Your task to perform on an android device: turn on wifi Image 0: 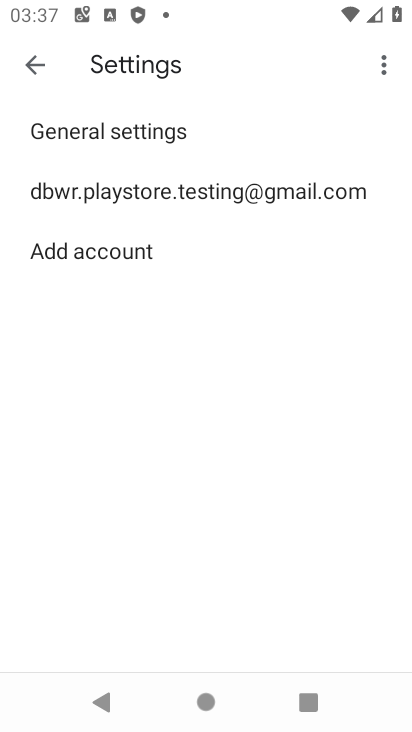
Step 0: press home button
Your task to perform on an android device: turn on wifi Image 1: 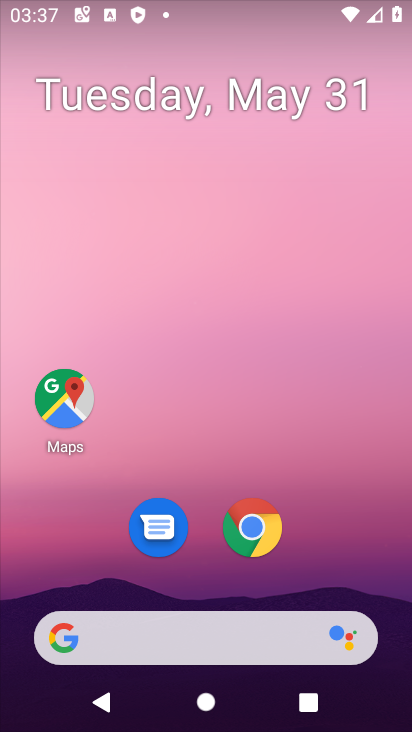
Step 1: drag from (401, 636) to (339, 72)
Your task to perform on an android device: turn on wifi Image 2: 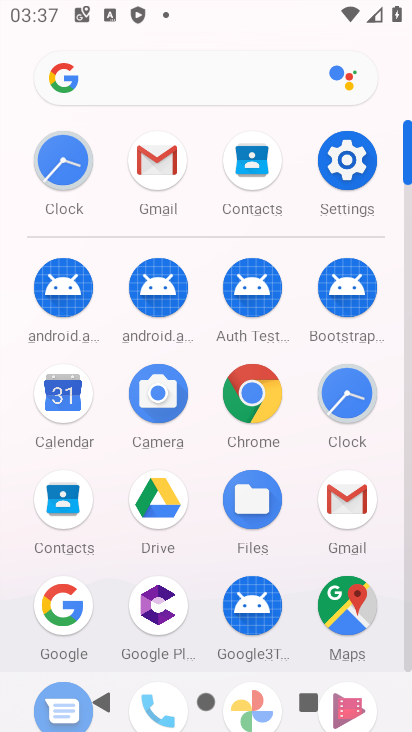
Step 2: click (407, 641)
Your task to perform on an android device: turn on wifi Image 3: 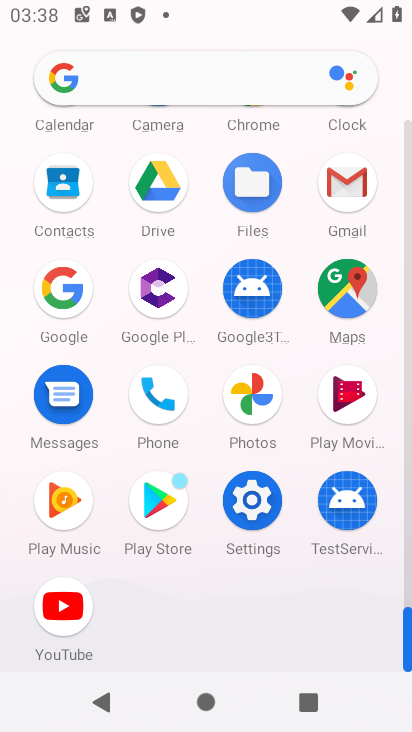
Step 3: click (250, 499)
Your task to perform on an android device: turn on wifi Image 4: 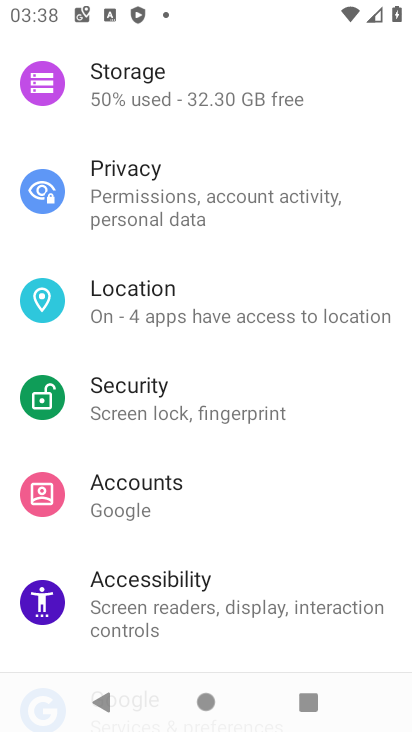
Step 4: drag from (327, 151) to (358, 469)
Your task to perform on an android device: turn on wifi Image 5: 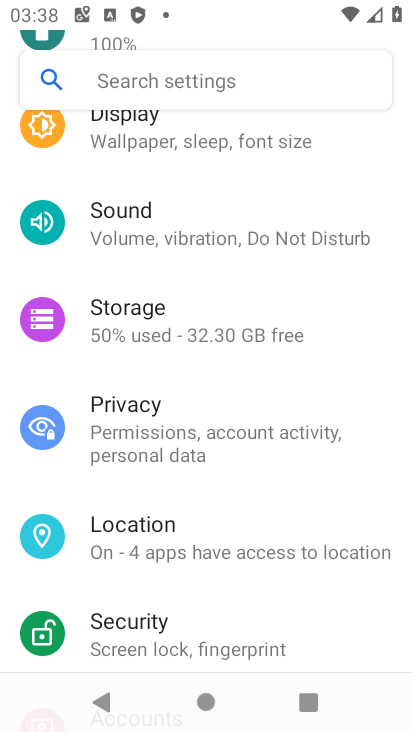
Step 5: drag from (375, 406) to (371, 522)
Your task to perform on an android device: turn on wifi Image 6: 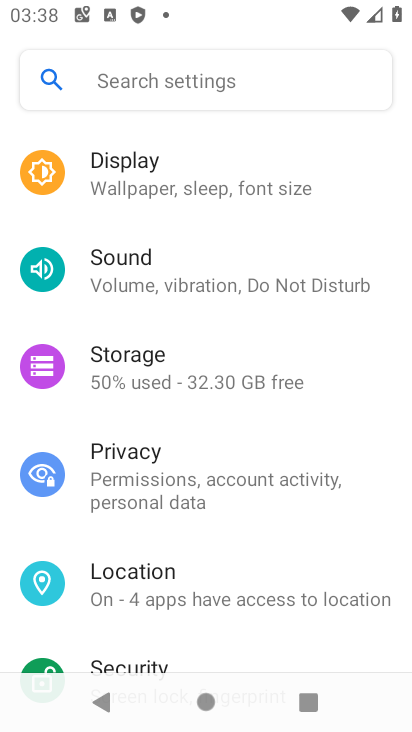
Step 6: drag from (380, 262) to (361, 647)
Your task to perform on an android device: turn on wifi Image 7: 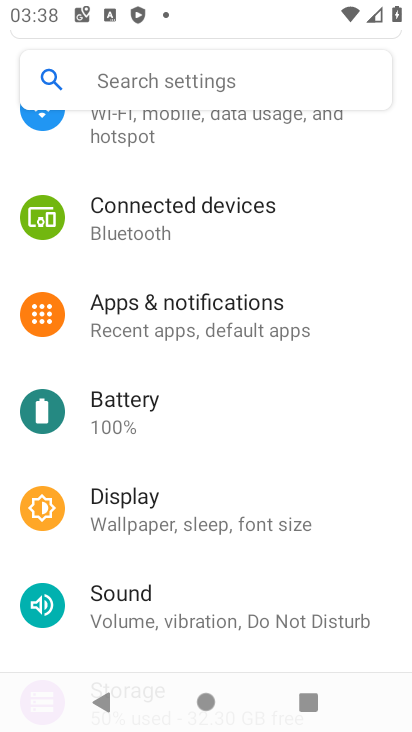
Step 7: drag from (353, 180) to (329, 512)
Your task to perform on an android device: turn on wifi Image 8: 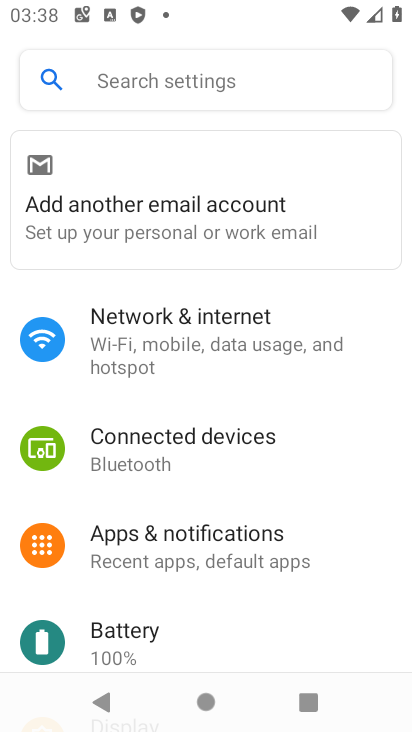
Step 8: click (185, 332)
Your task to perform on an android device: turn on wifi Image 9: 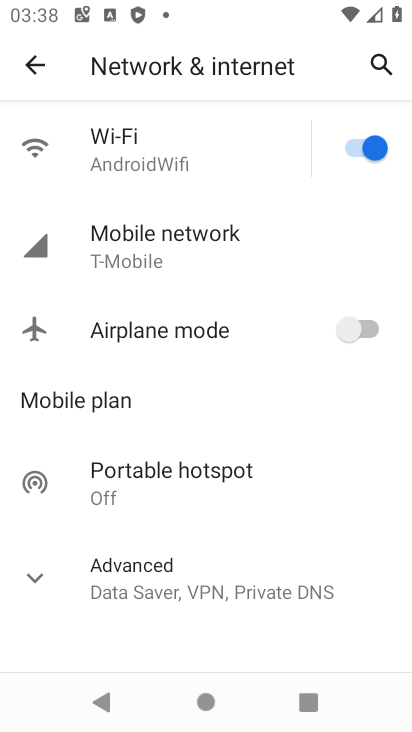
Step 9: task complete